Your task to perform on an android device: Open the web browser Image 0: 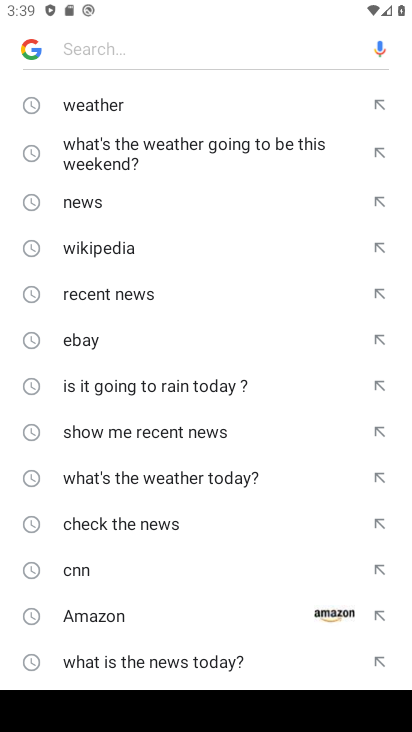
Step 0: press home button
Your task to perform on an android device: Open the web browser Image 1: 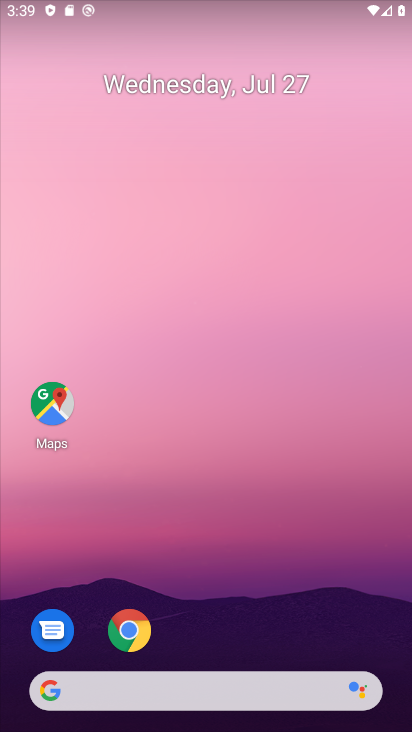
Step 1: click (132, 617)
Your task to perform on an android device: Open the web browser Image 2: 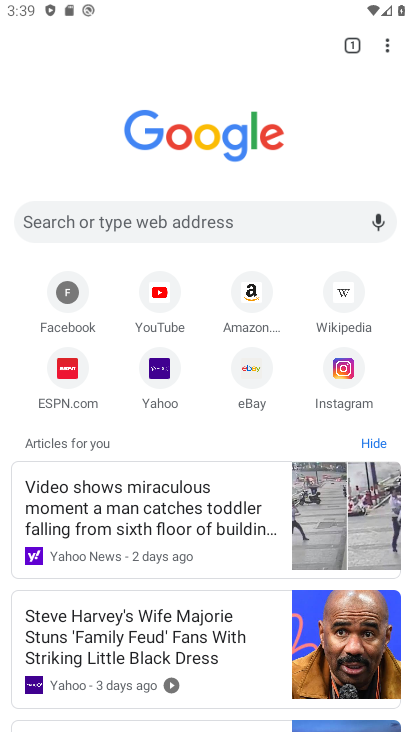
Step 2: task complete